Your task to perform on an android device: Search for Italian restaurants on Maps Image 0: 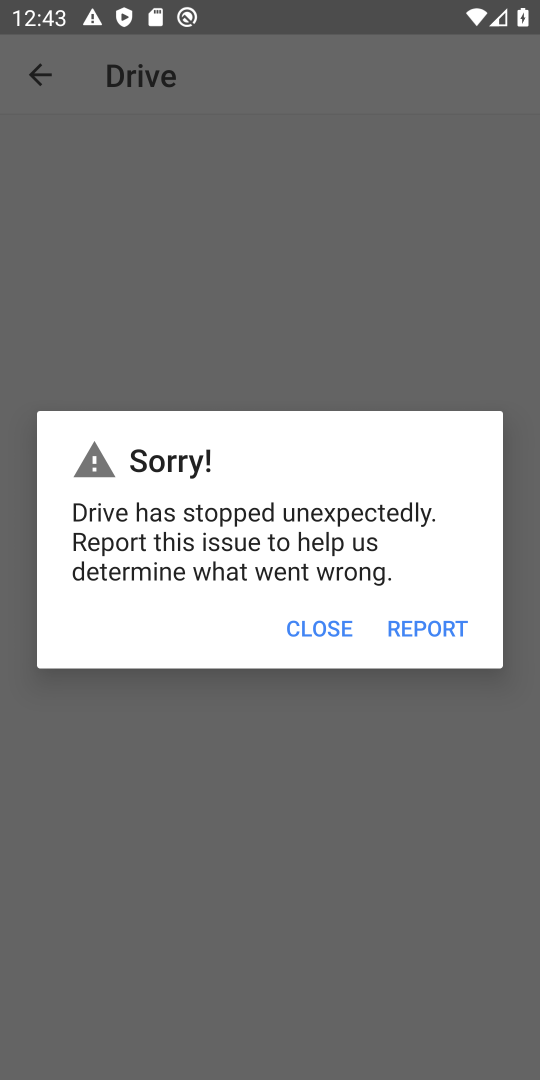
Step 0: press home button
Your task to perform on an android device: Search for Italian restaurants on Maps Image 1: 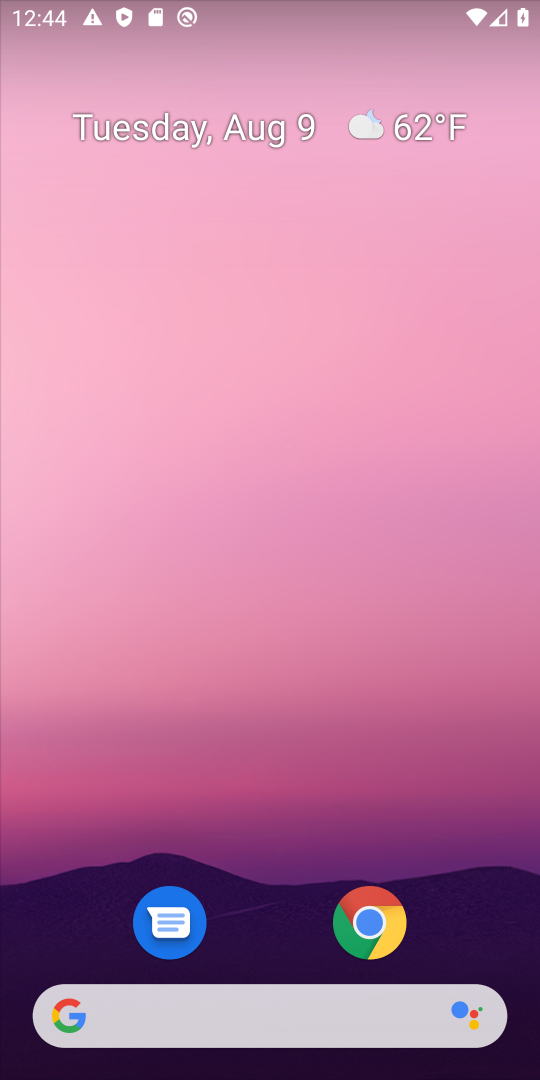
Step 1: drag from (267, 971) to (246, 115)
Your task to perform on an android device: Search for Italian restaurants on Maps Image 2: 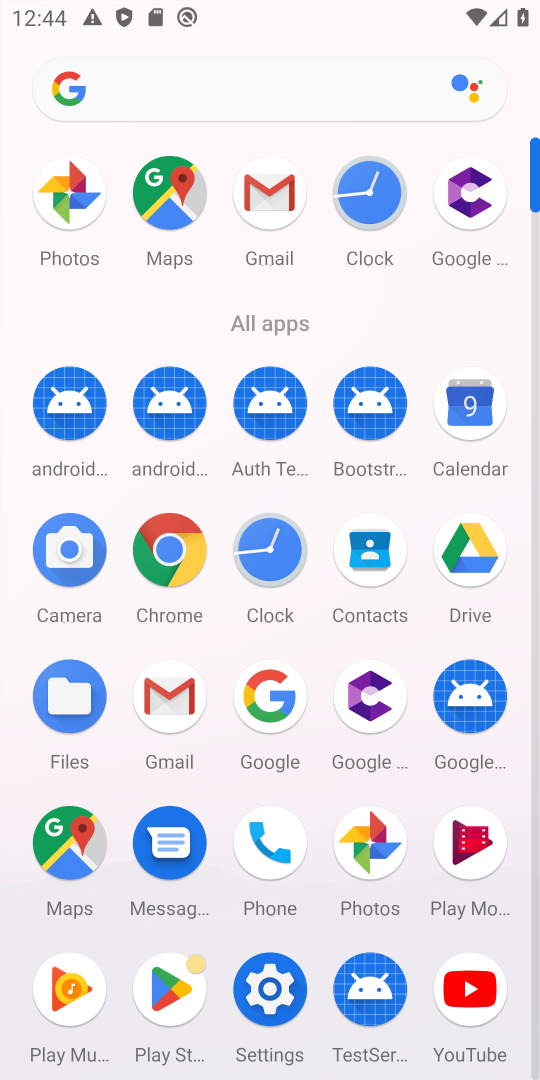
Step 2: click (97, 885)
Your task to perform on an android device: Search for Italian restaurants on Maps Image 3: 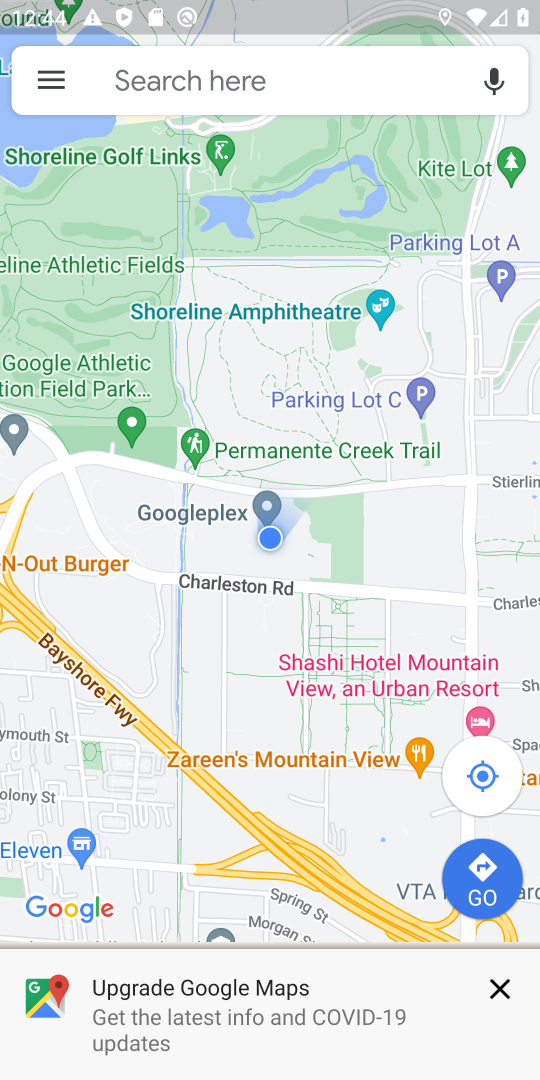
Step 3: click (258, 94)
Your task to perform on an android device: Search for Italian restaurants on Maps Image 4: 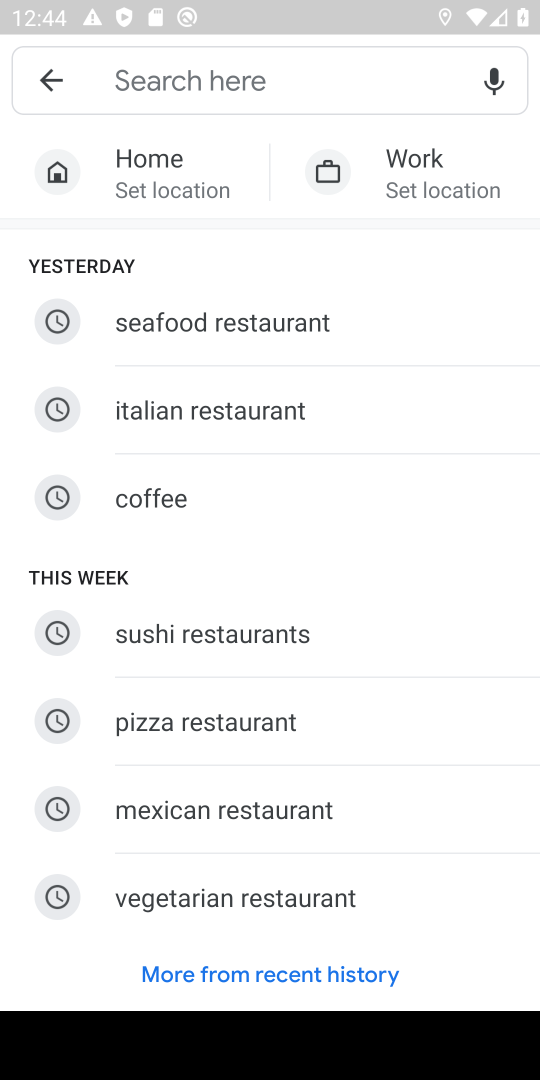
Step 4: click (192, 414)
Your task to perform on an android device: Search for Italian restaurants on Maps Image 5: 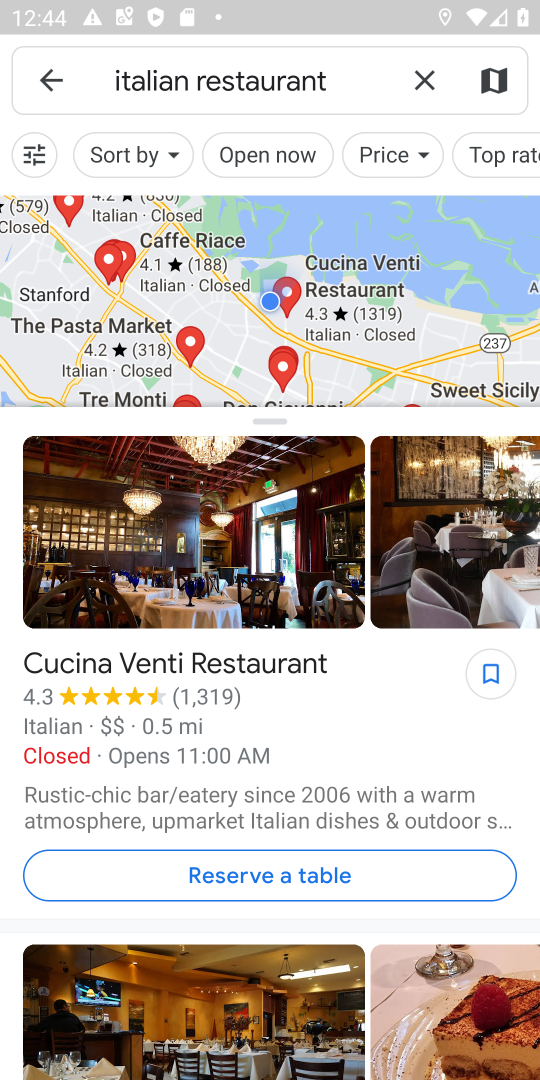
Step 5: task complete